Your task to perform on an android device: delete browsing data in the chrome app Image 0: 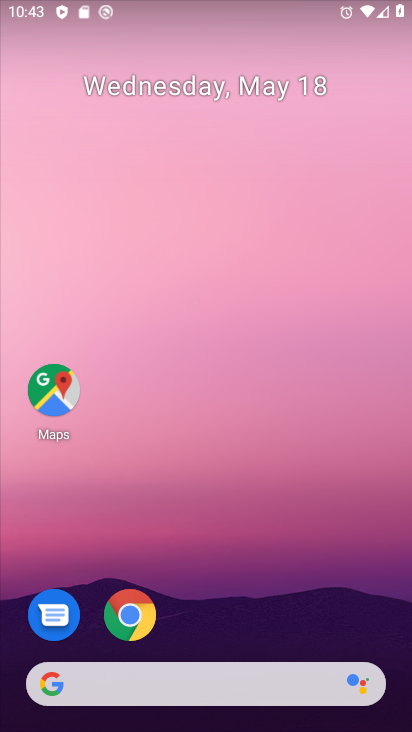
Step 0: click (143, 617)
Your task to perform on an android device: delete browsing data in the chrome app Image 1: 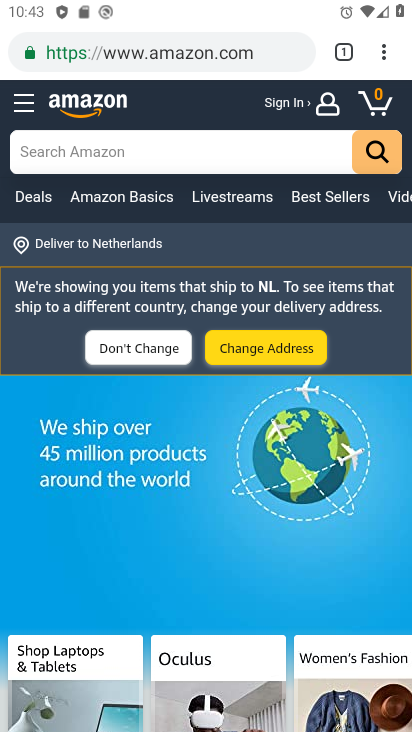
Step 1: click (377, 47)
Your task to perform on an android device: delete browsing data in the chrome app Image 2: 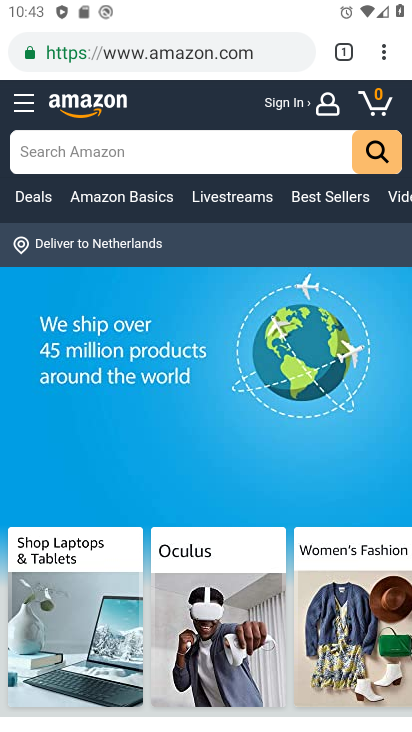
Step 2: click (390, 45)
Your task to perform on an android device: delete browsing data in the chrome app Image 3: 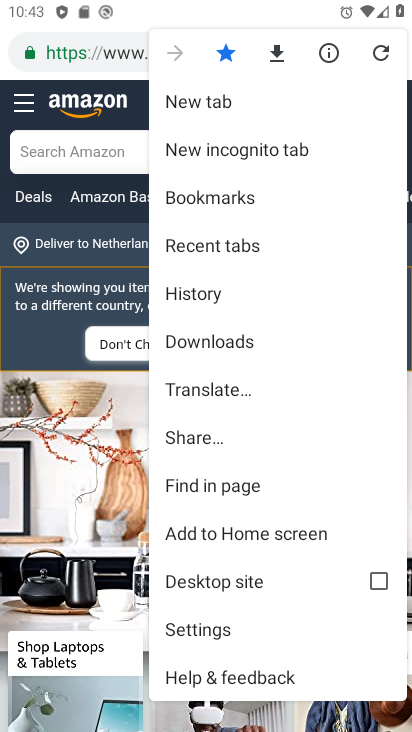
Step 3: click (201, 290)
Your task to perform on an android device: delete browsing data in the chrome app Image 4: 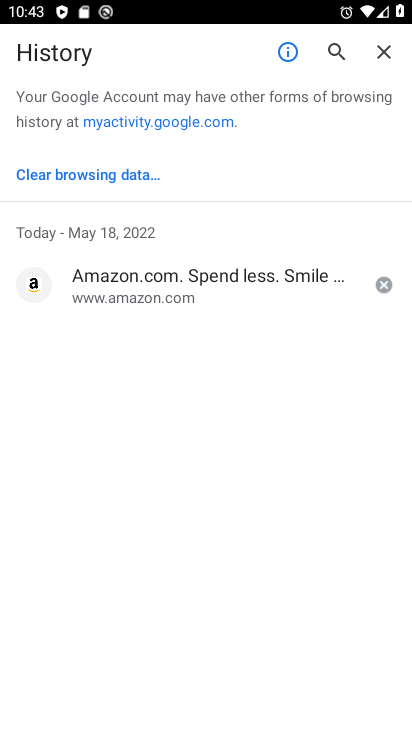
Step 4: click (90, 180)
Your task to perform on an android device: delete browsing data in the chrome app Image 5: 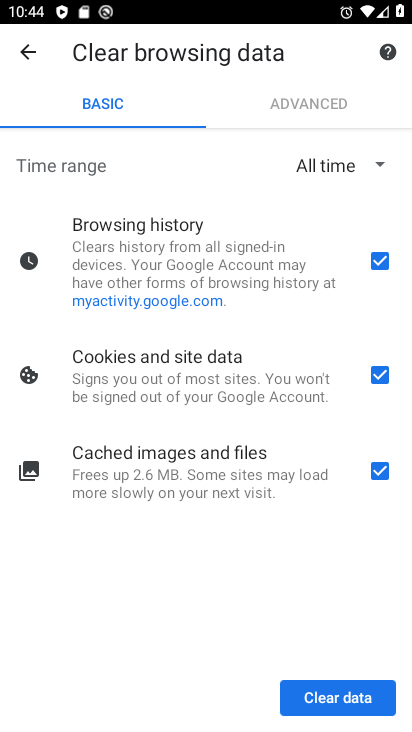
Step 5: click (327, 692)
Your task to perform on an android device: delete browsing data in the chrome app Image 6: 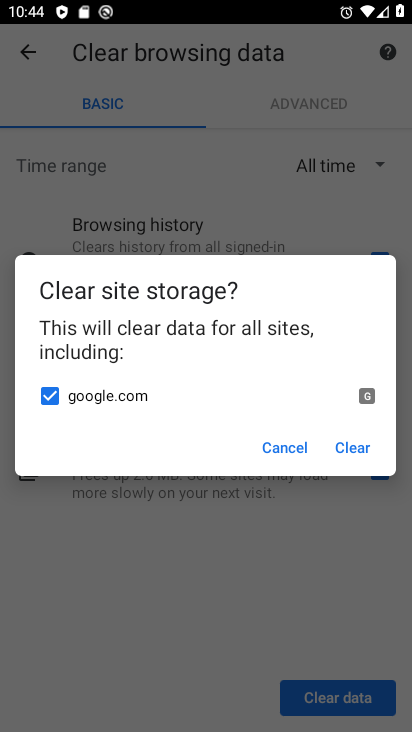
Step 6: click (355, 436)
Your task to perform on an android device: delete browsing data in the chrome app Image 7: 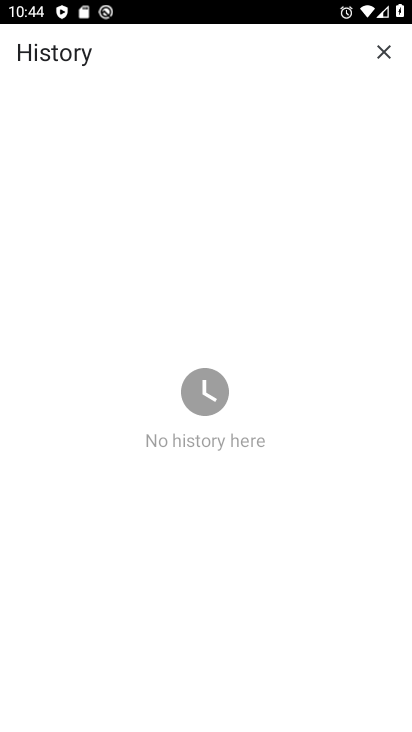
Step 7: task complete